Your task to perform on an android device: When is my next meeting? Image 0: 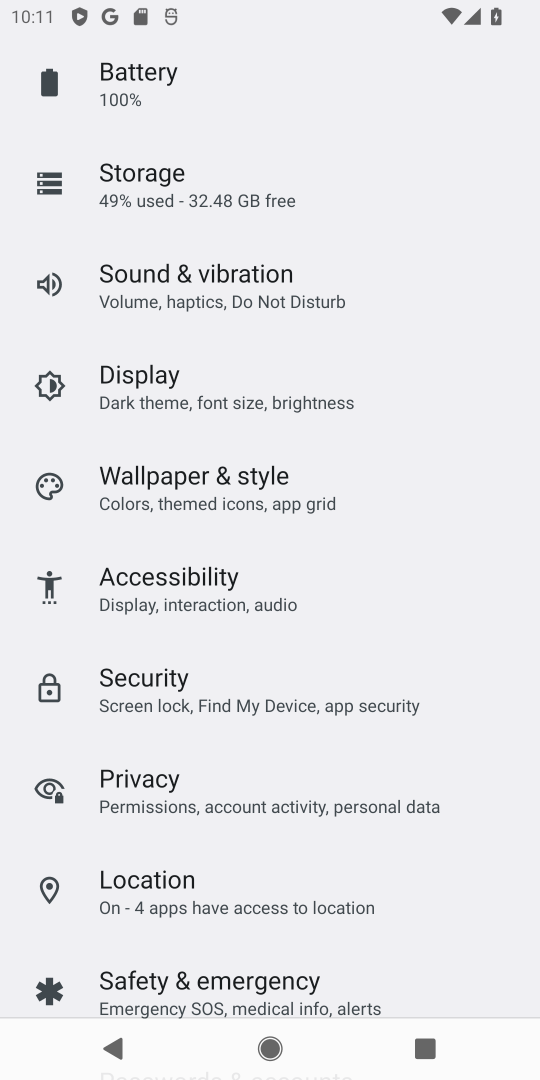
Step 0: press home button
Your task to perform on an android device: When is my next meeting? Image 1: 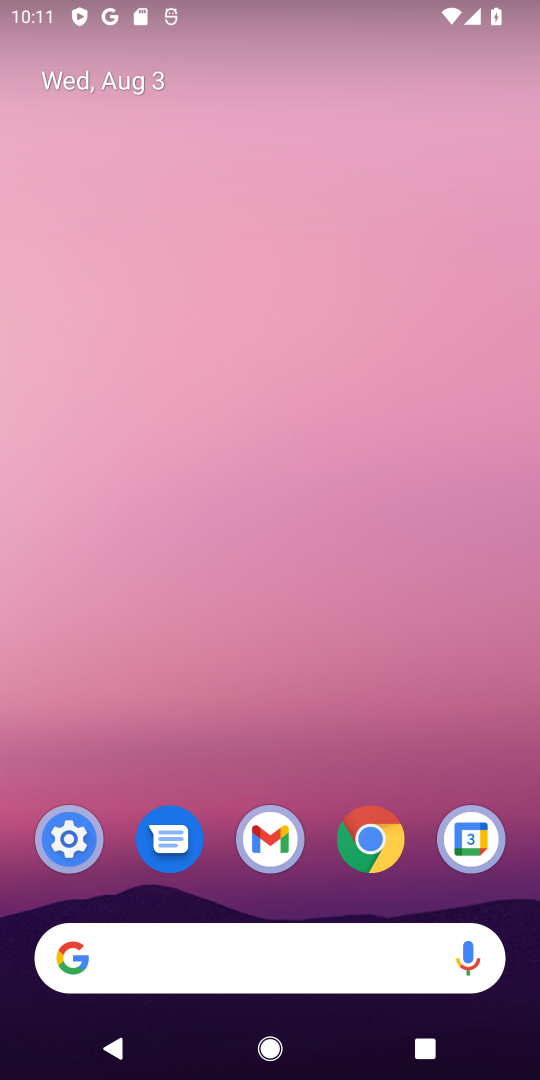
Step 1: drag from (201, 886) to (324, 11)
Your task to perform on an android device: When is my next meeting? Image 2: 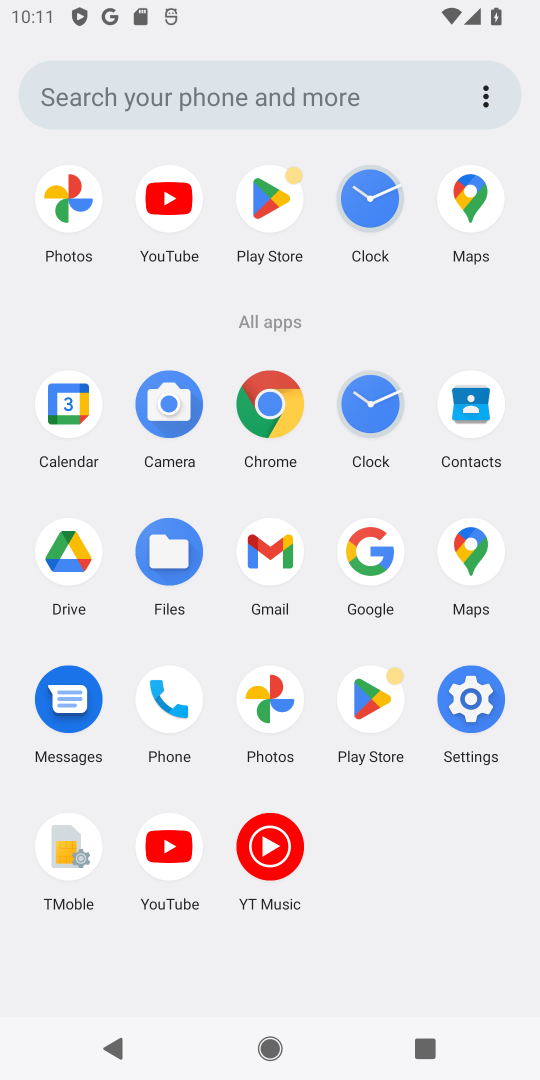
Step 2: click (58, 422)
Your task to perform on an android device: When is my next meeting? Image 3: 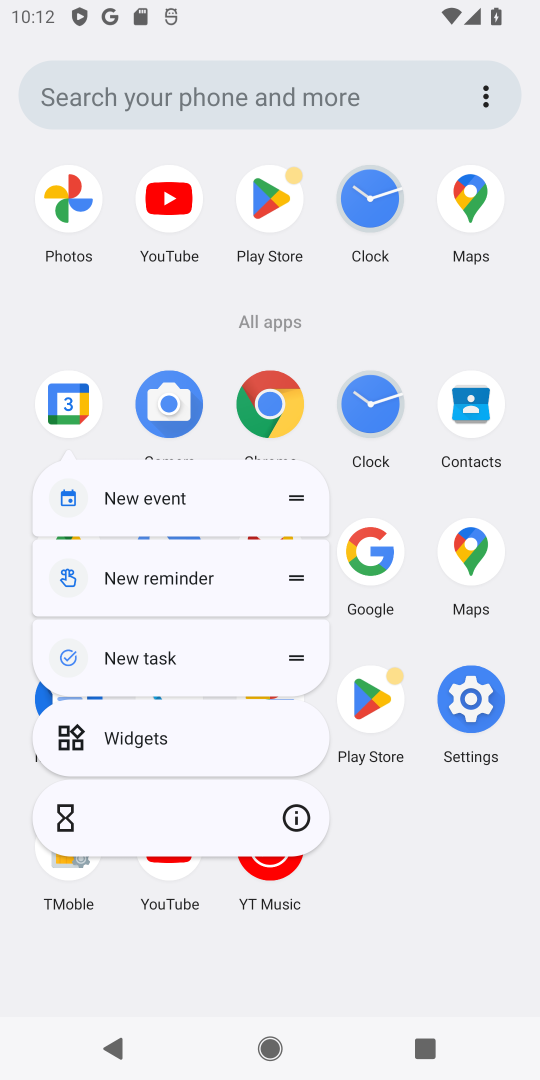
Step 3: click (72, 399)
Your task to perform on an android device: When is my next meeting? Image 4: 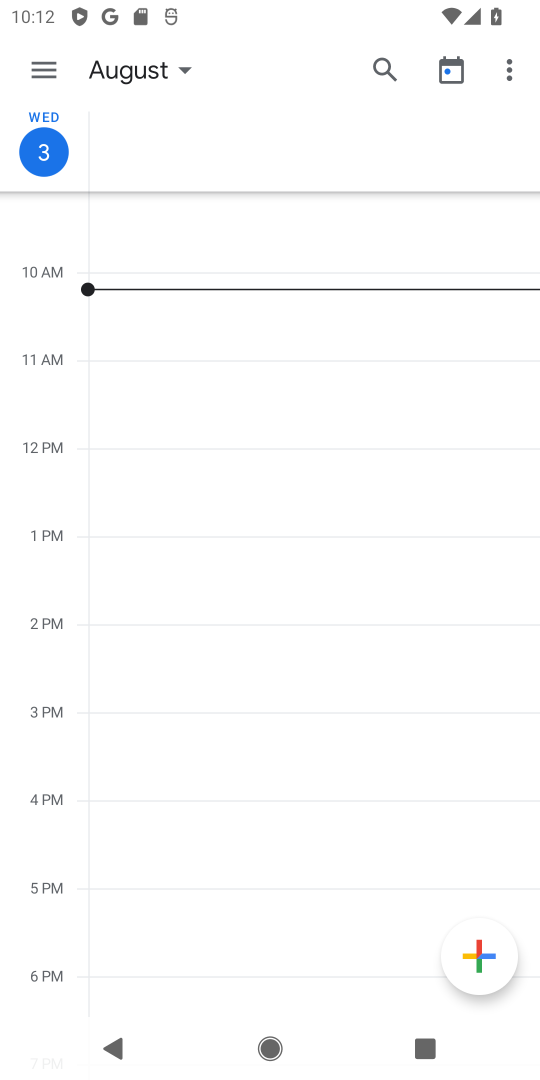
Step 4: click (46, 66)
Your task to perform on an android device: When is my next meeting? Image 5: 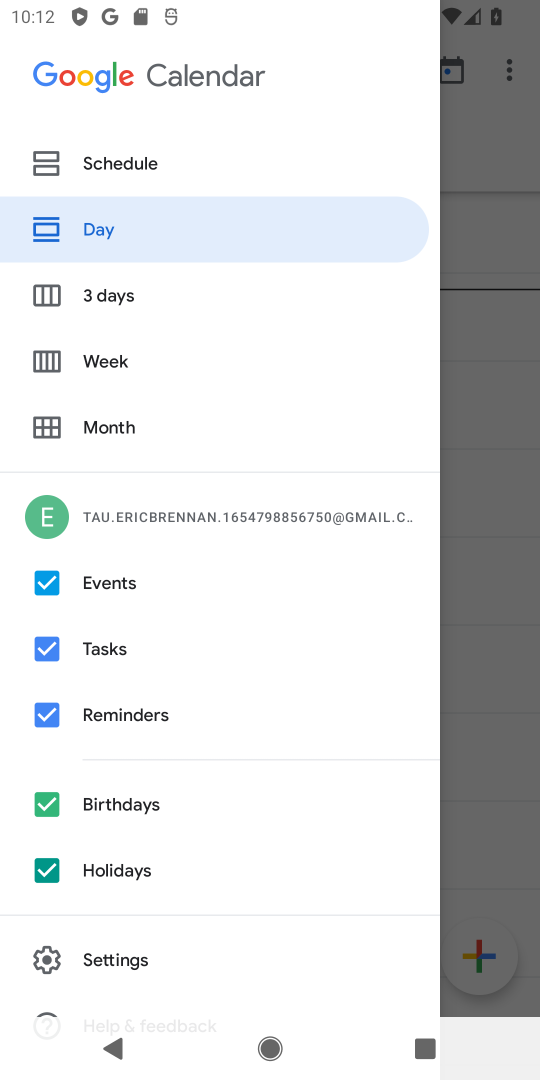
Step 5: click (49, 823)
Your task to perform on an android device: When is my next meeting? Image 6: 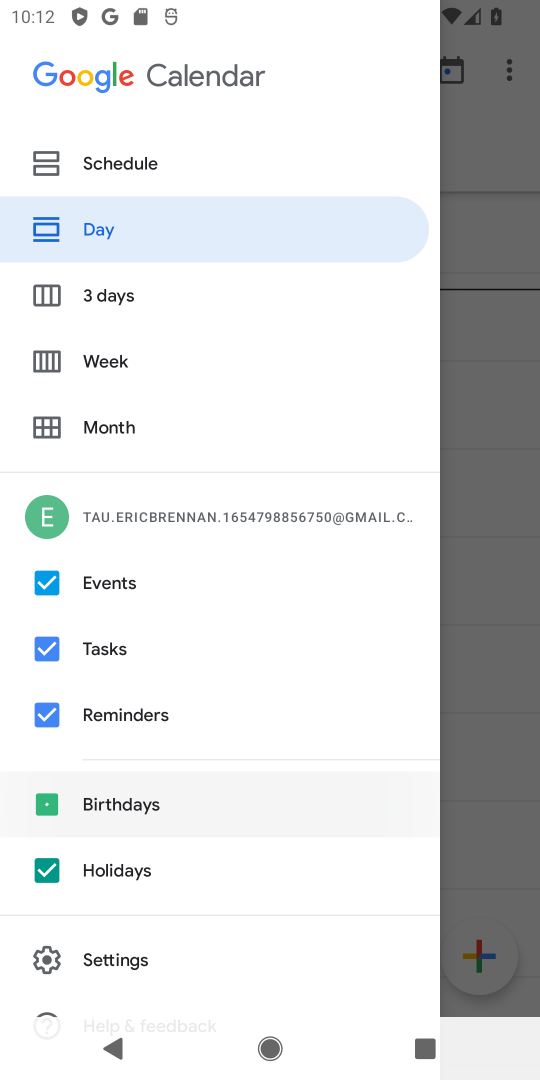
Step 6: click (42, 880)
Your task to perform on an android device: When is my next meeting? Image 7: 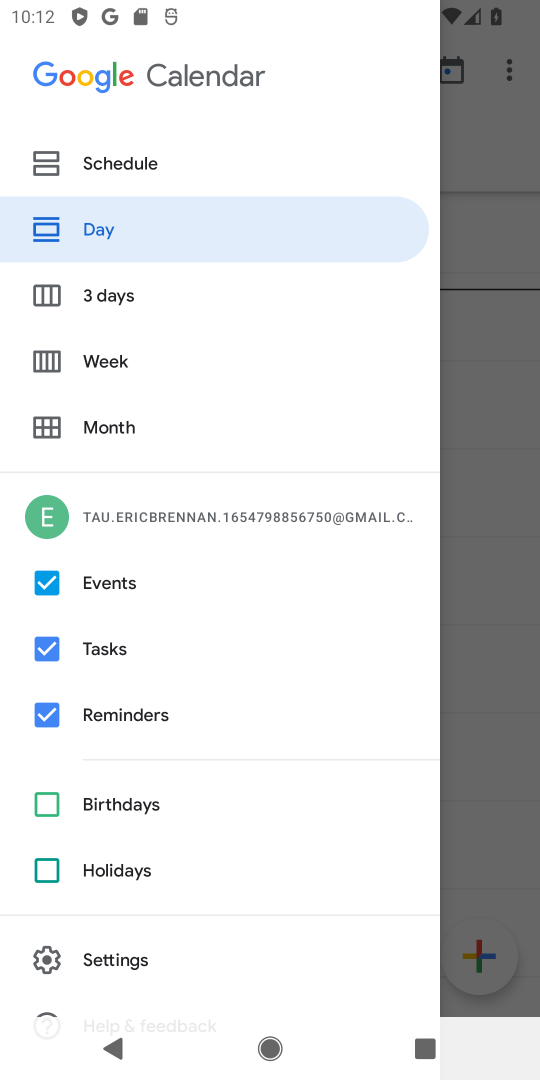
Step 7: click (180, 141)
Your task to perform on an android device: When is my next meeting? Image 8: 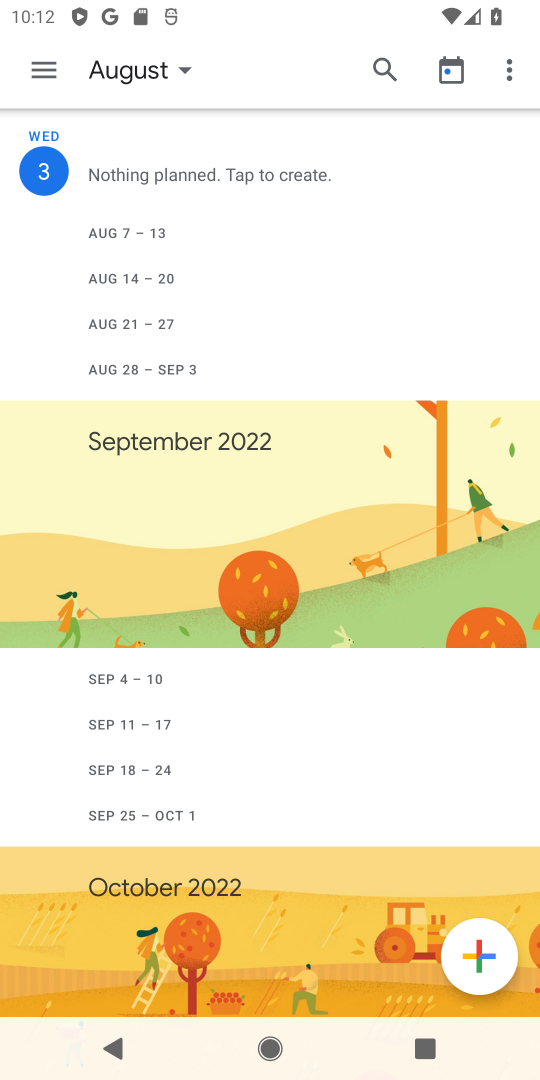
Step 8: task complete